Your task to perform on an android device: toggle show notifications on the lock screen Image 0: 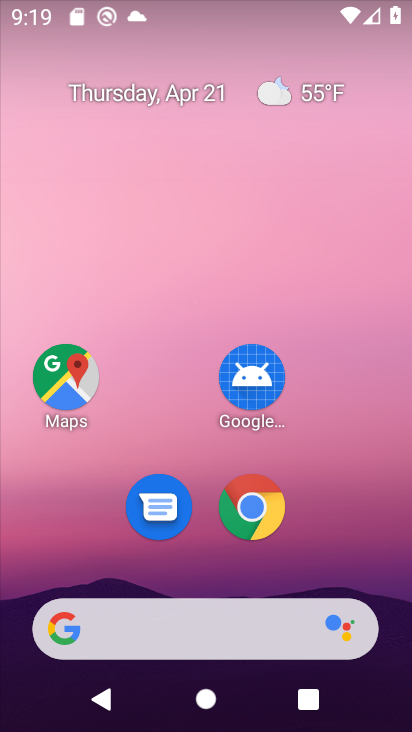
Step 0: drag from (314, 558) to (332, 129)
Your task to perform on an android device: toggle show notifications on the lock screen Image 1: 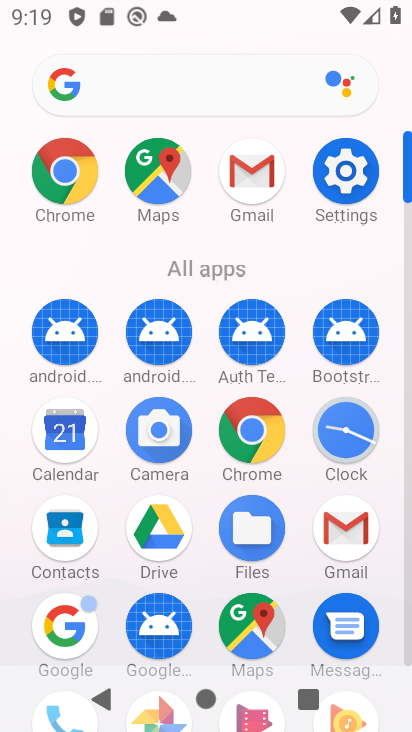
Step 1: click (339, 157)
Your task to perform on an android device: toggle show notifications on the lock screen Image 2: 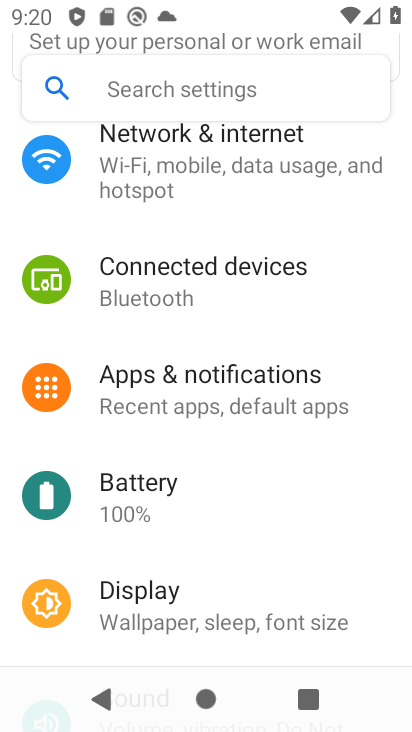
Step 2: click (187, 401)
Your task to perform on an android device: toggle show notifications on the lock screen Image 3: 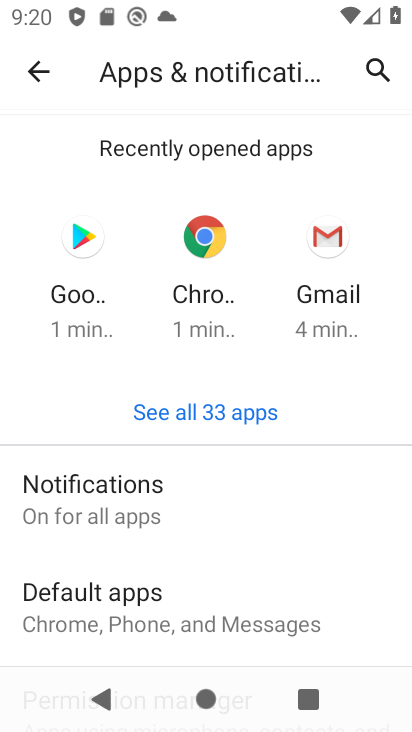
Step 3: click (148, 494)
Your task to perform on an android device: toggle show notifications on the lock screen Image 4: 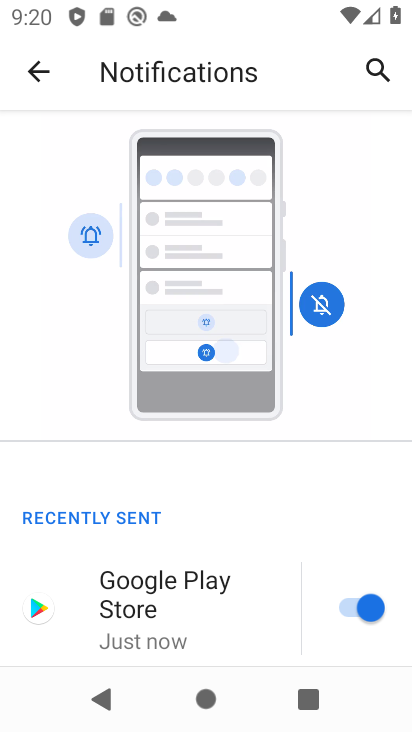
Step 4: drag from (186, 597) to (265, 113)
Your task to perform on an android device: toggle show notifications on the lock screen Image 5: 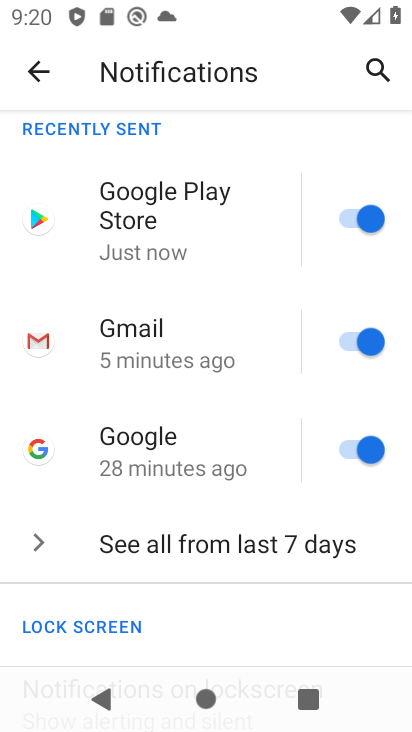
Step 5: drag from (166, 616) to (224, 222)
Your task to perform on an android device: toggle show notifications on the lock screen Image 6: 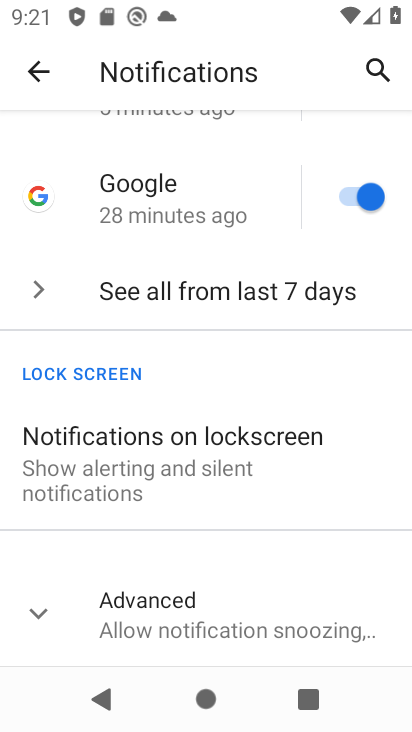
Step 6: click (214, 480)
Your task to perform on an android device: toggle show notifications on the lock screen Image 7: 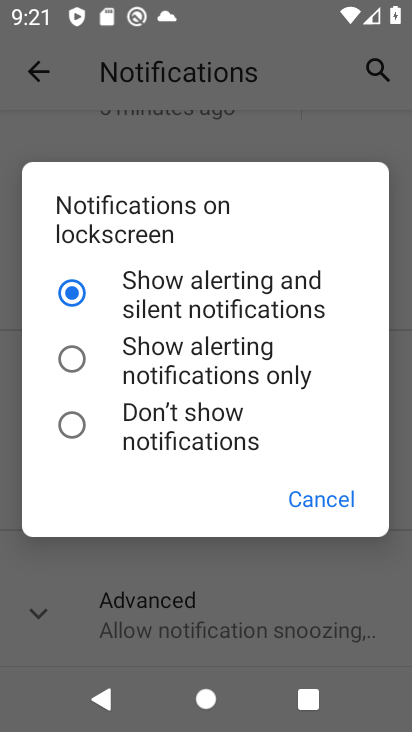
Step 7: click (162, 366)
Your task to perform on an android device: toggle show notifications on the lock screen Image 8: 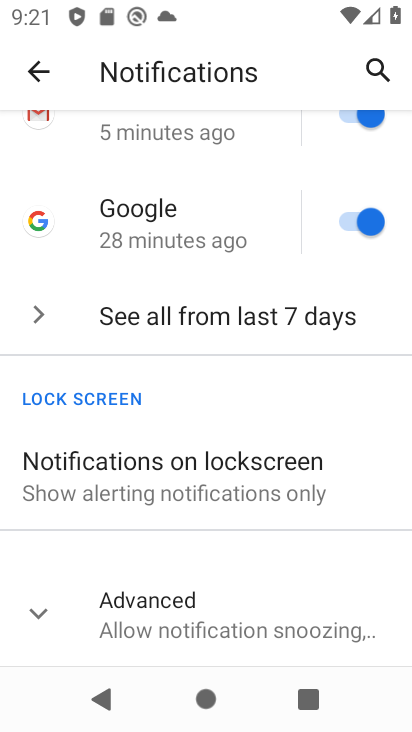
Step 8: task complete